Your task to perform on an android device: find photos in the google photos app Image 0: 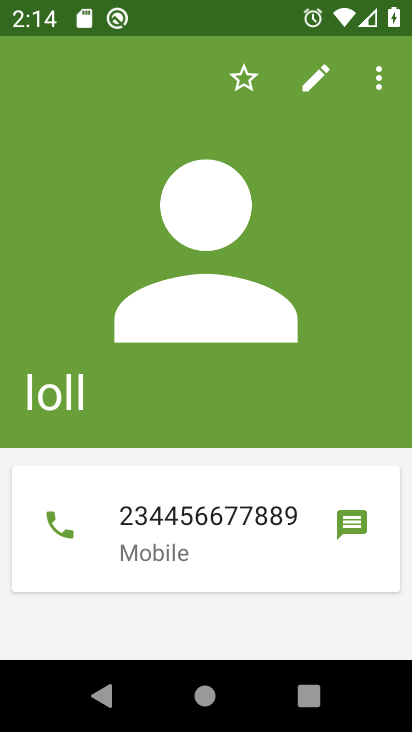
Step 0: press home button
Your task to perform on an android device: find photos in the google photos app Image 1: 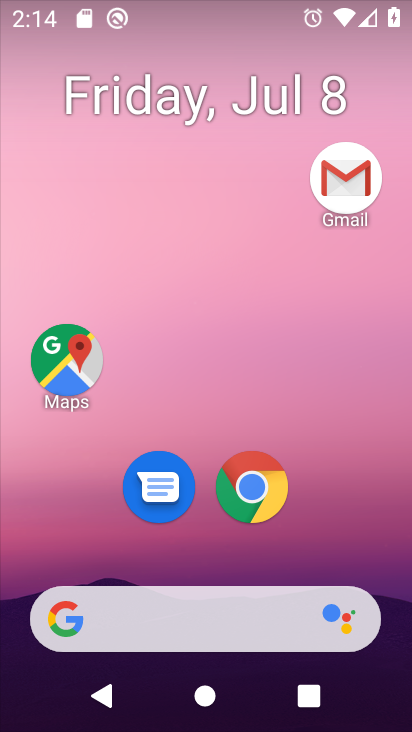
Step 1: drag from (336, 487) to (370, 101)
Your task to perform on an android device: find photos in the google photos app Image 2: 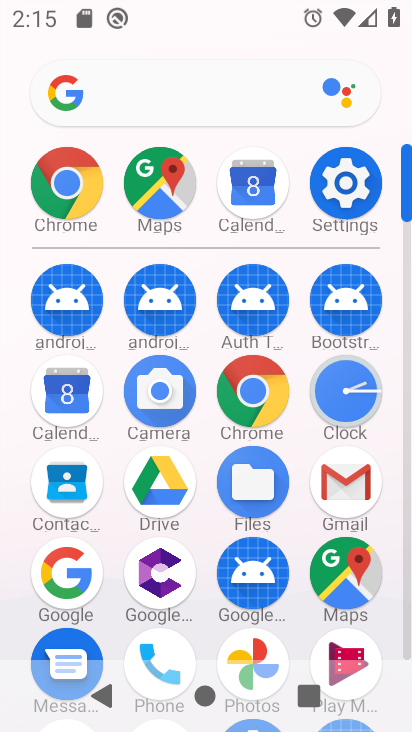
Step 2: click (258, 659)
Your task to perform on an android device: find photos in the google photos app Image 3: 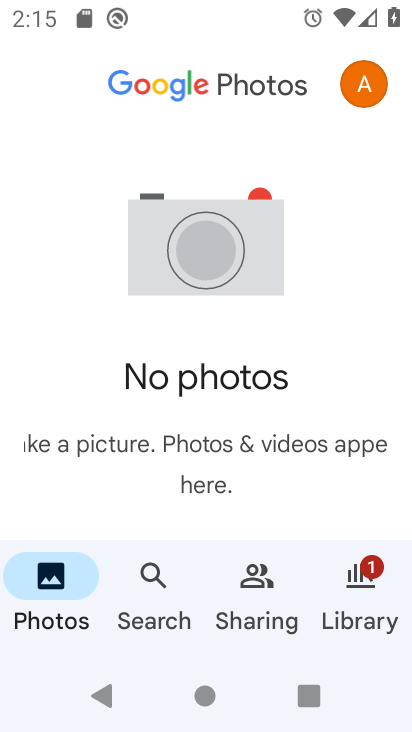
Step 3: task complete